Your task to perform on an android device: Check the weather Image 0: 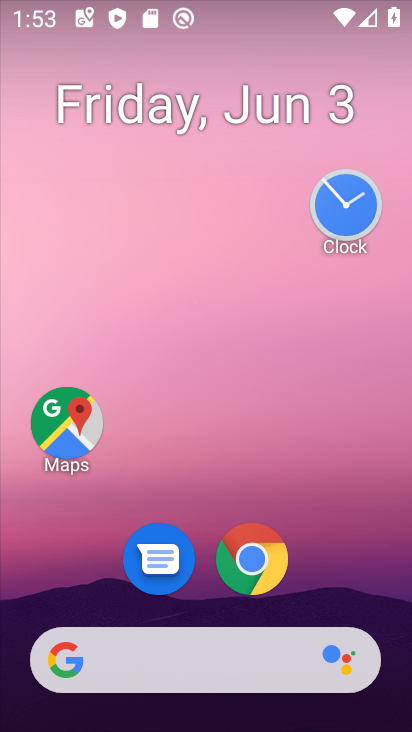
Step 0: drag from (372, 603) to (317, 557)
Your task to perform on an android device: Check the weather Image 1: 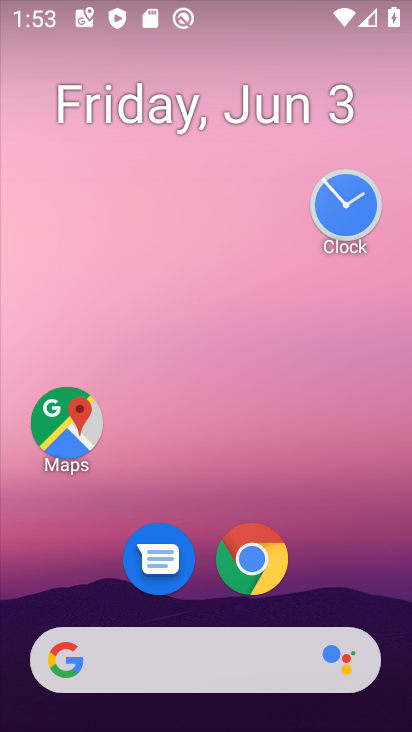
Step 1: drag from (16, 280) to (229, 332)
Your task to perform on an android device: Check the weather Image 2: 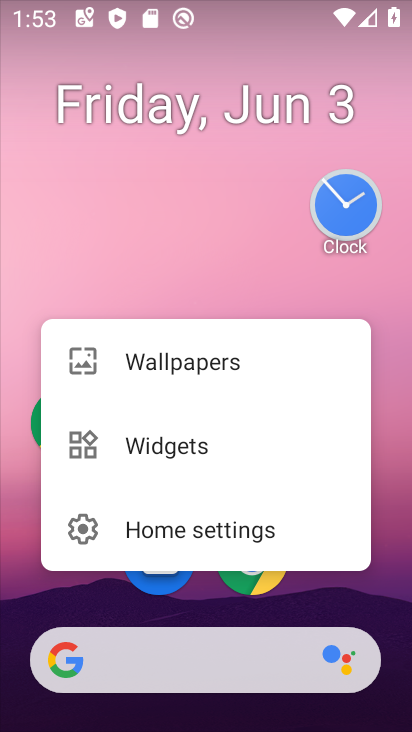
Step 2: drag from (12, 246) to (392, 303)
Your task to perform on an android device: Check the weather Image 3: 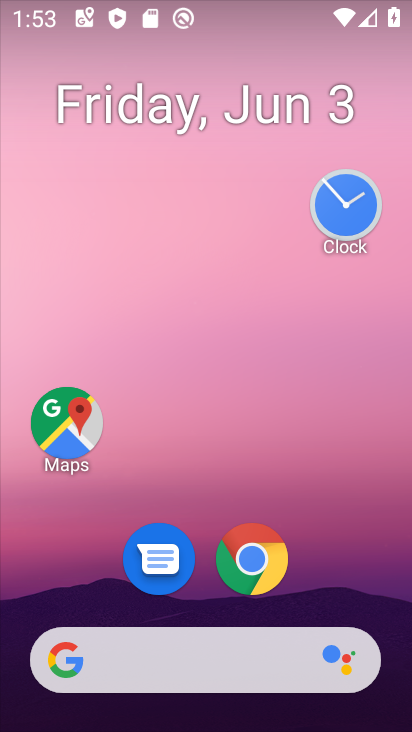
Step 3: drag from (4, 250) to (411, 225)
Your task to perform on an android device: Check the weather Image 4: 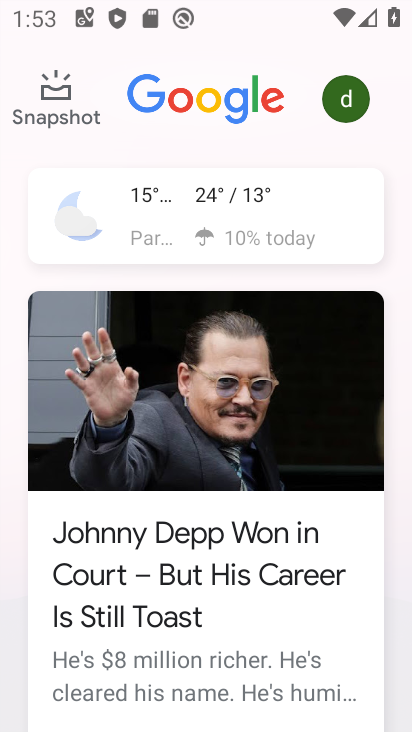
Step 4: click (208, 202)
Your task to perform on an android device: Check the weather Image 5: 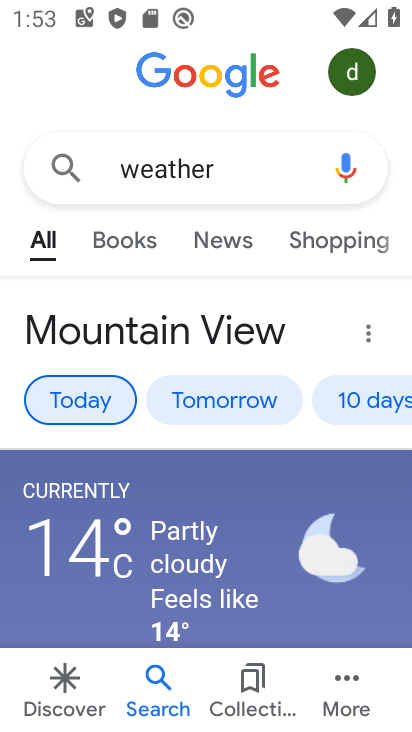
Step 5: task complete